Your task to perform on an android device: turn on the 24-hour format for clock Image 0: 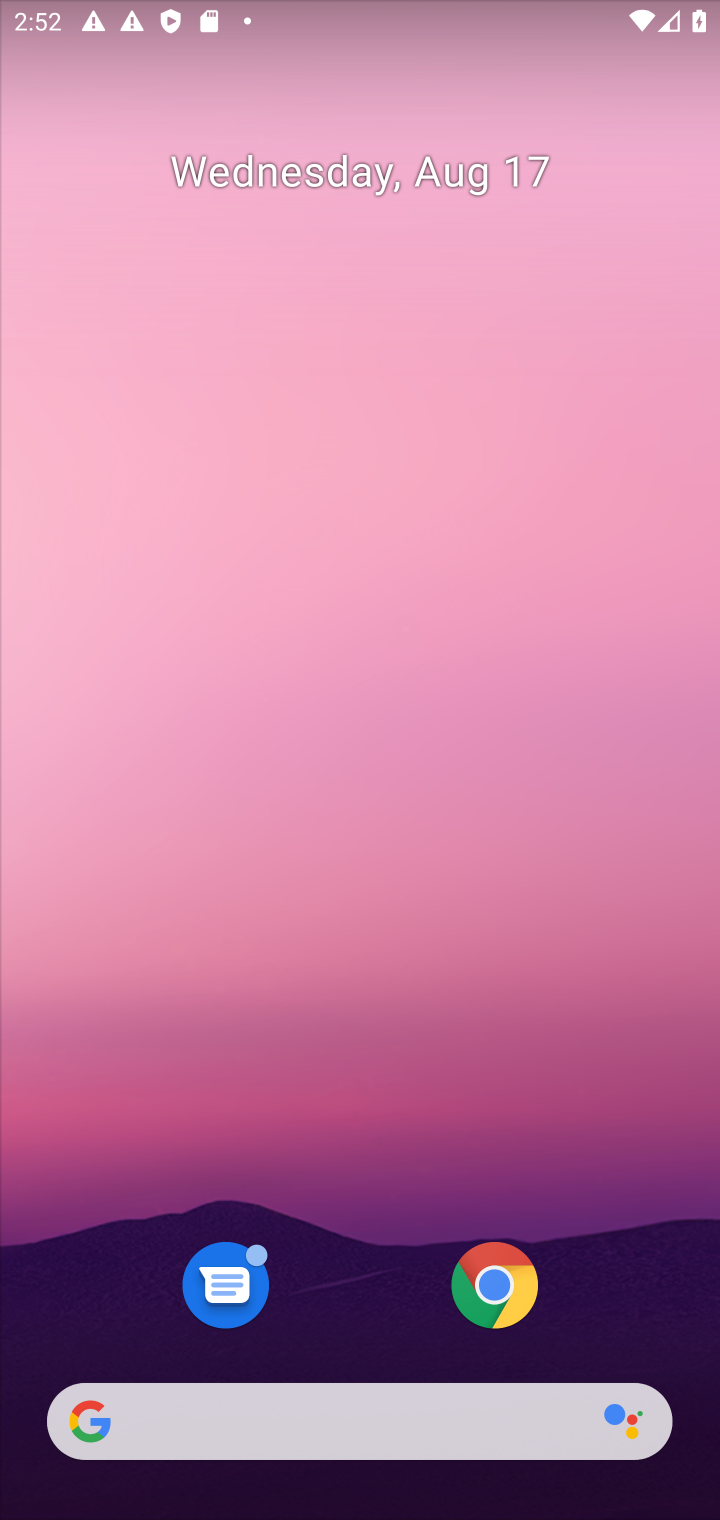
Step 0: drag from (387, 988) to (360, 56)
Your task to perform on an android device: turn on the 24-hour format for clock Image 1: 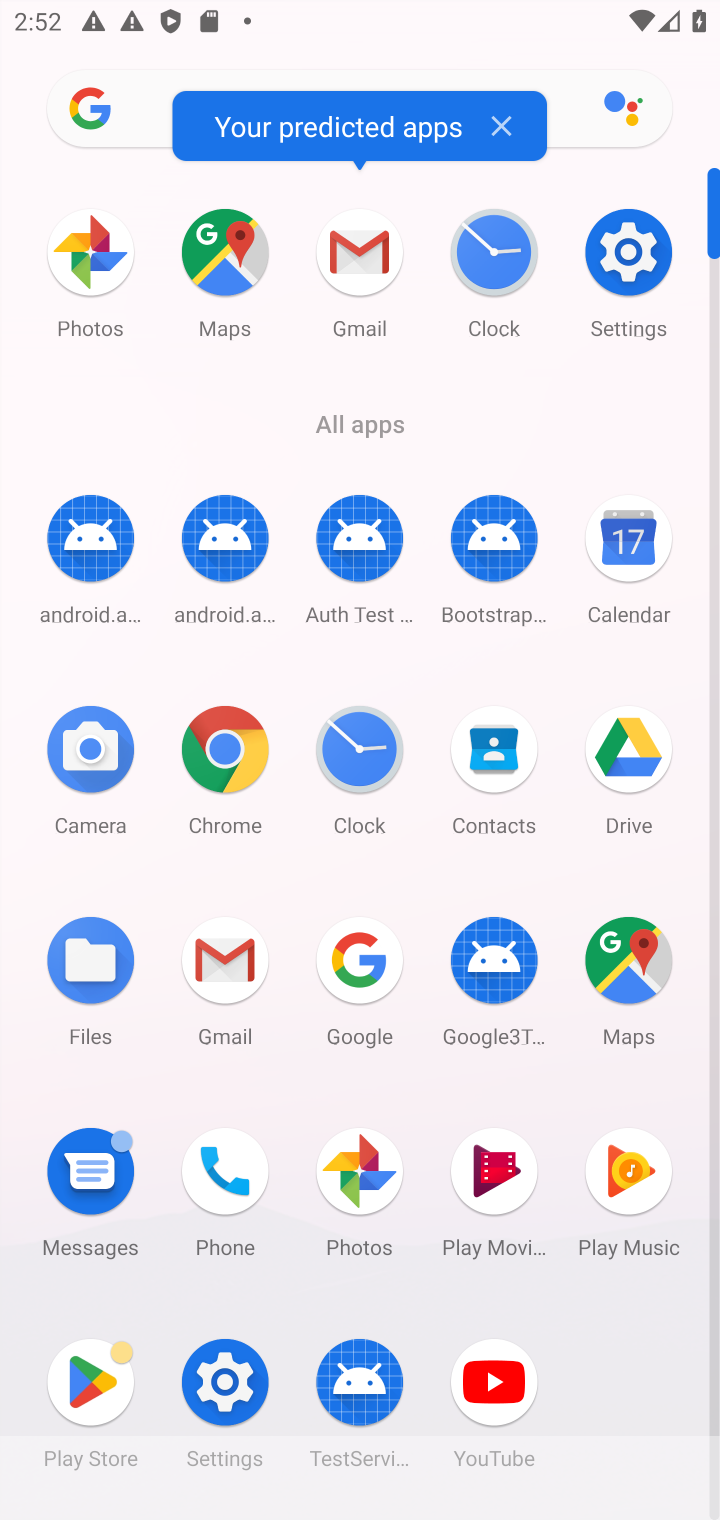
Step 1: click (233, 1374)
Your task to perform on an android device: turn on the 24-hour format for clock Image 2: 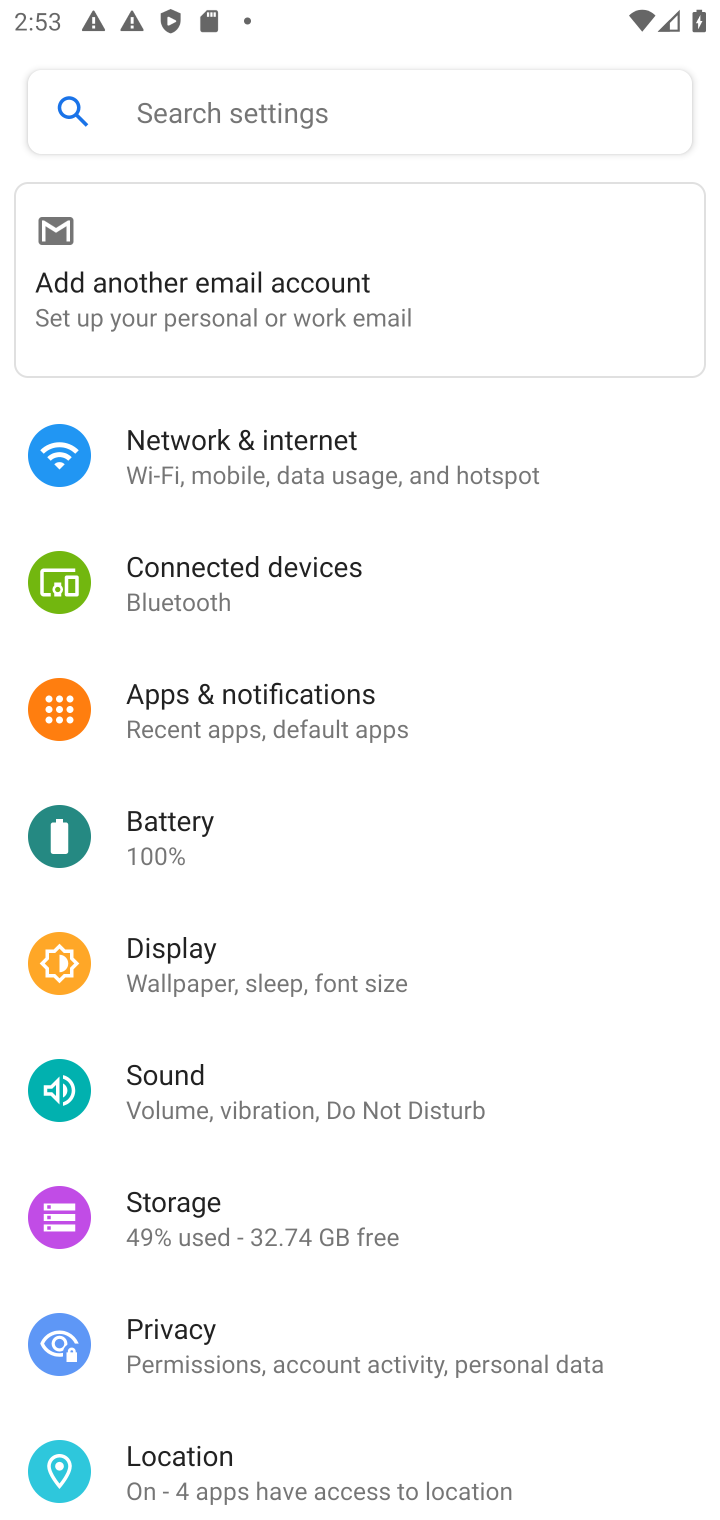
Step 2: drag from (298, 1230) to (321, 263)
Your task to perform on an android device: turn on the 24-hour format for clock Image 3: 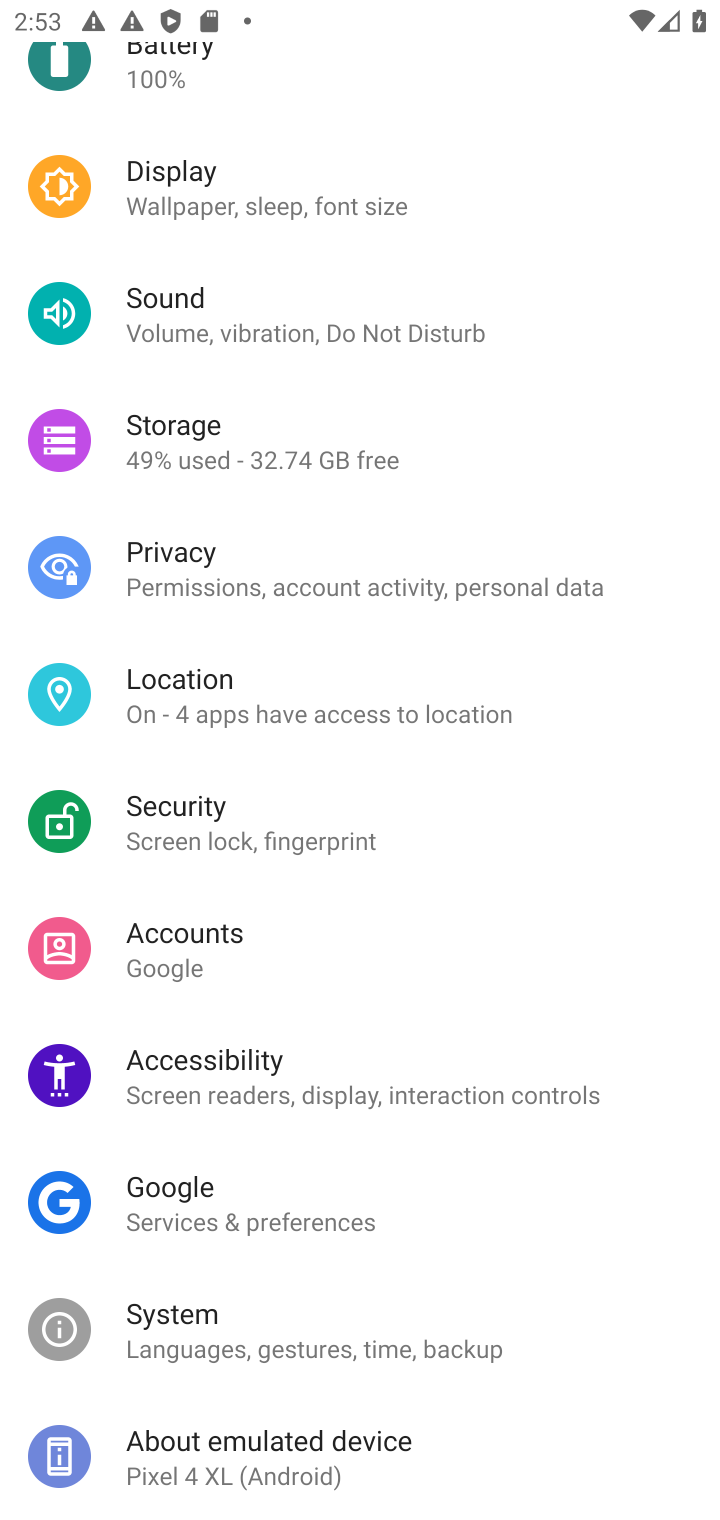
Step 3: click (284, 1343)
Your task to perform on an android device: turn on the 24-hour format for clock Image 4: 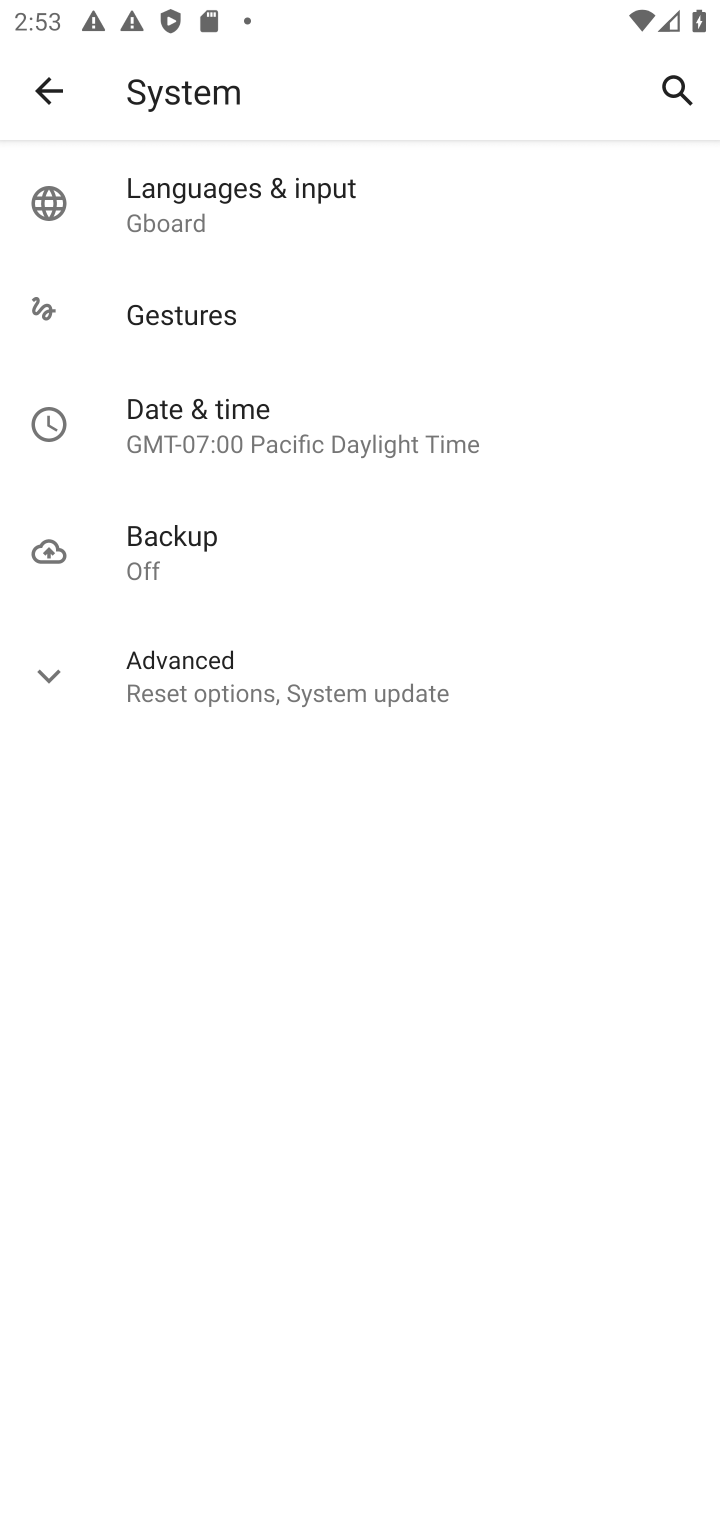
Step 4: click (173, 431)
Your task to perform on an android device: turn on the 24-hour format for clock Image 5: 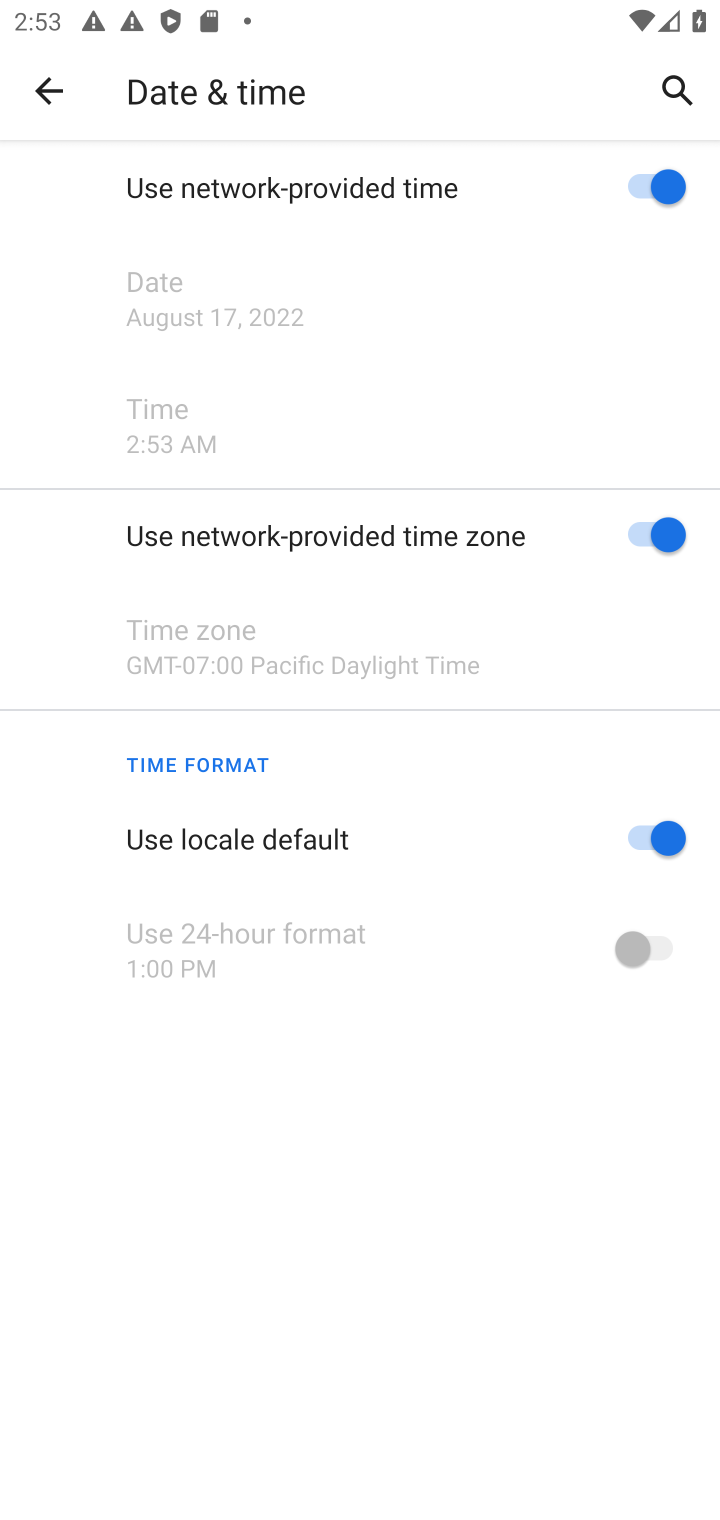
Step 5: click (595, 831)
Your task to perform on an android device: turn on the 24-hour format for clock Image 6: 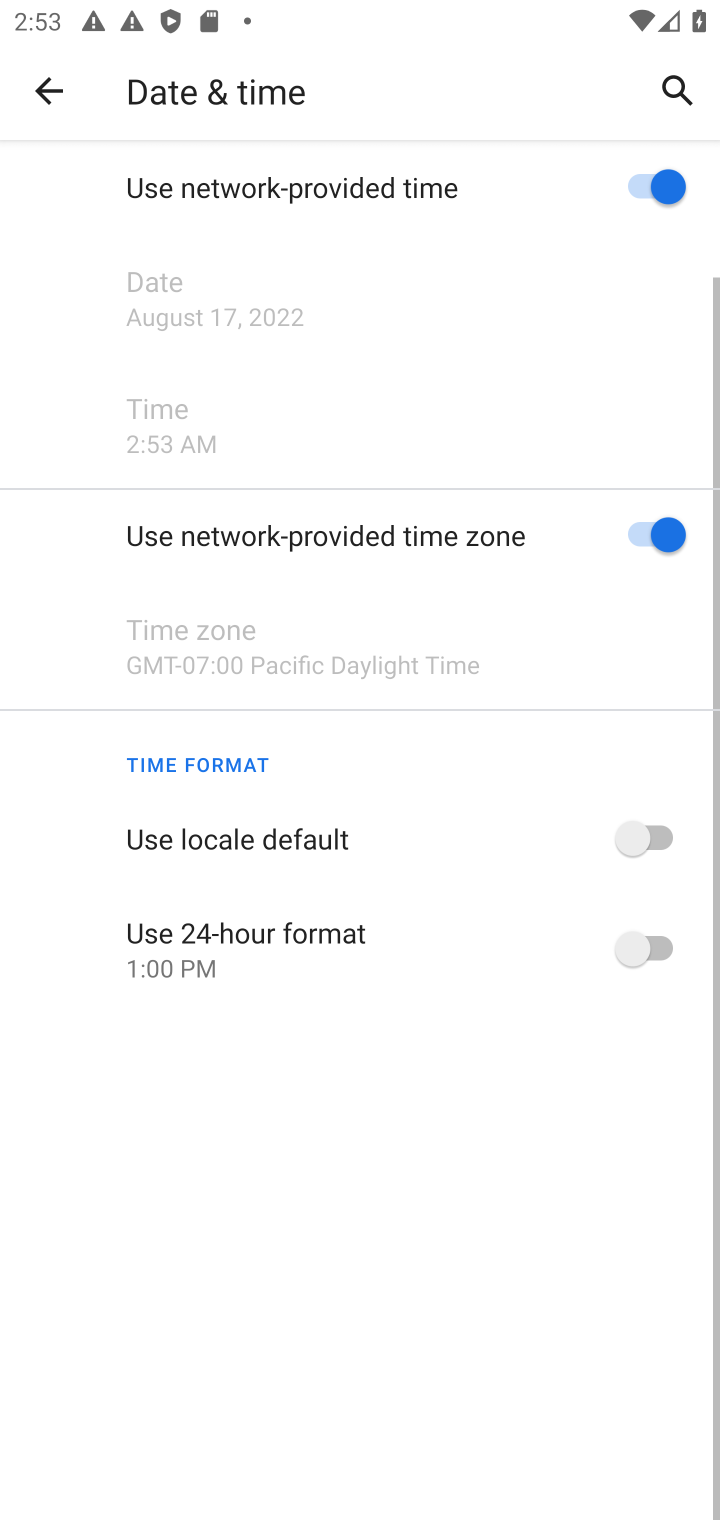
Step 6: click (678, 936)
Your task to perform on an android device: turn on the 24-hour format for clock Image 7: 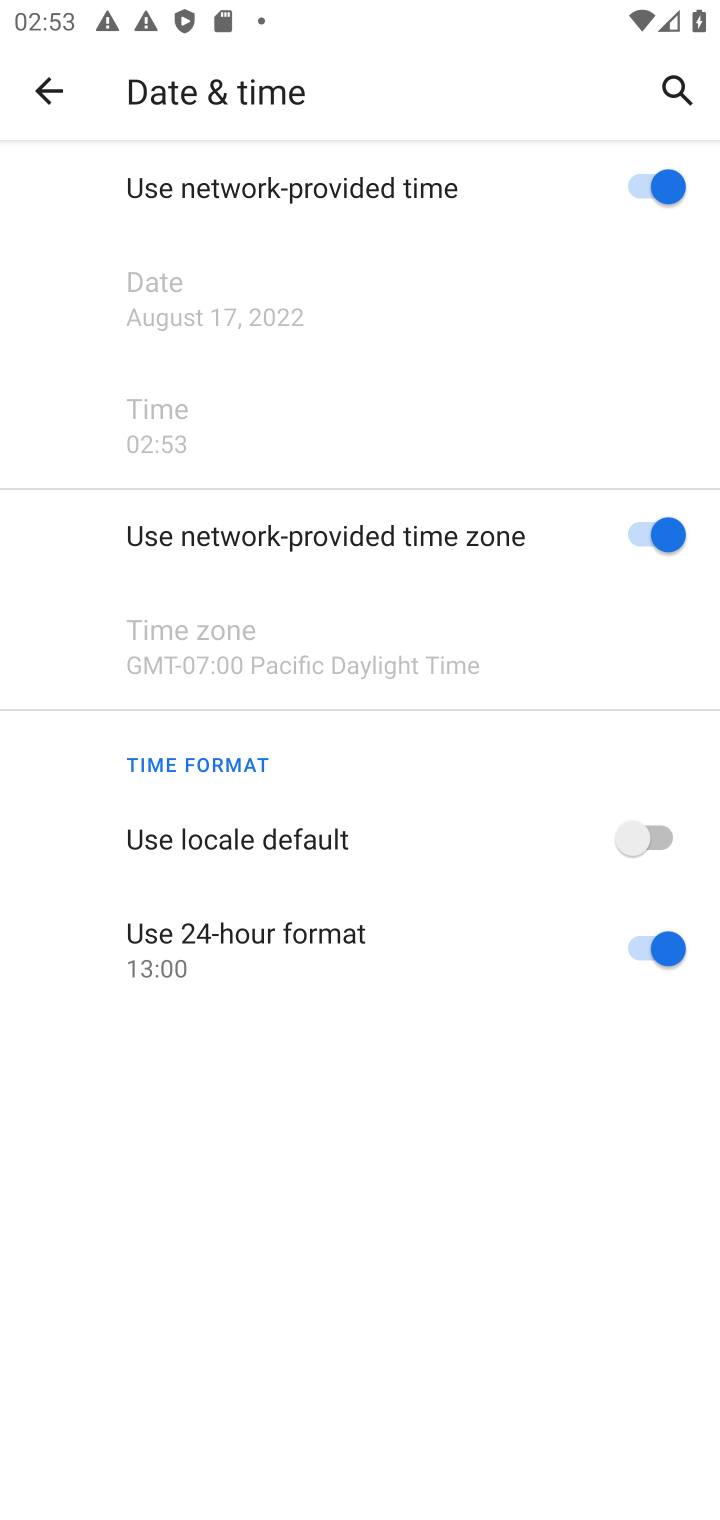
Step 7: task complete